Your task to perform on an android device: Search for beats solo 3 on newegg.com, select the first entry, and add it to the cart. Image 0: 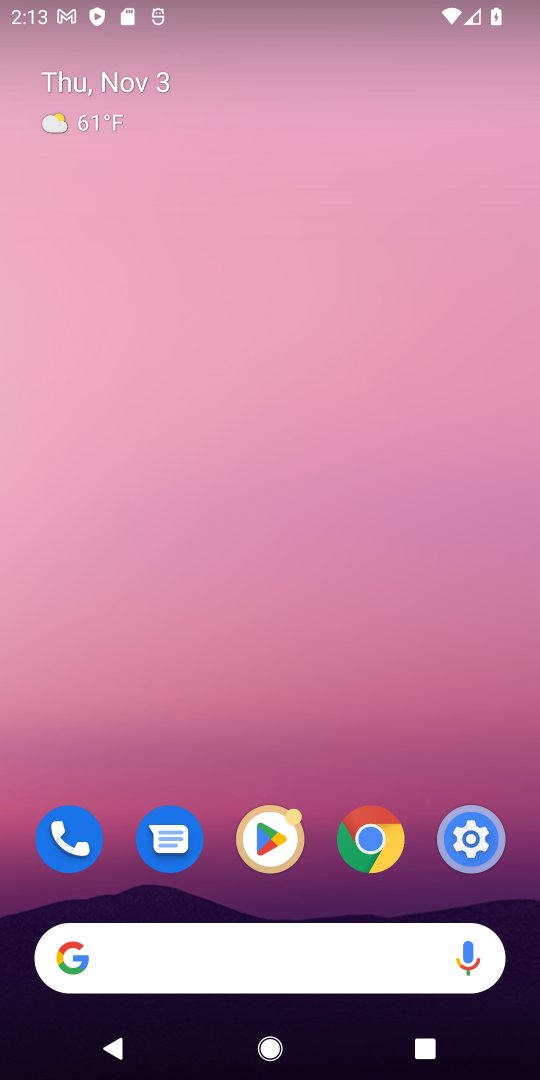
Step 0: click (157, 971)
Your task to perform on an android device: Search for beats solo 3 on newegg.com, select the first entry, and add it to the cart. Image 1: 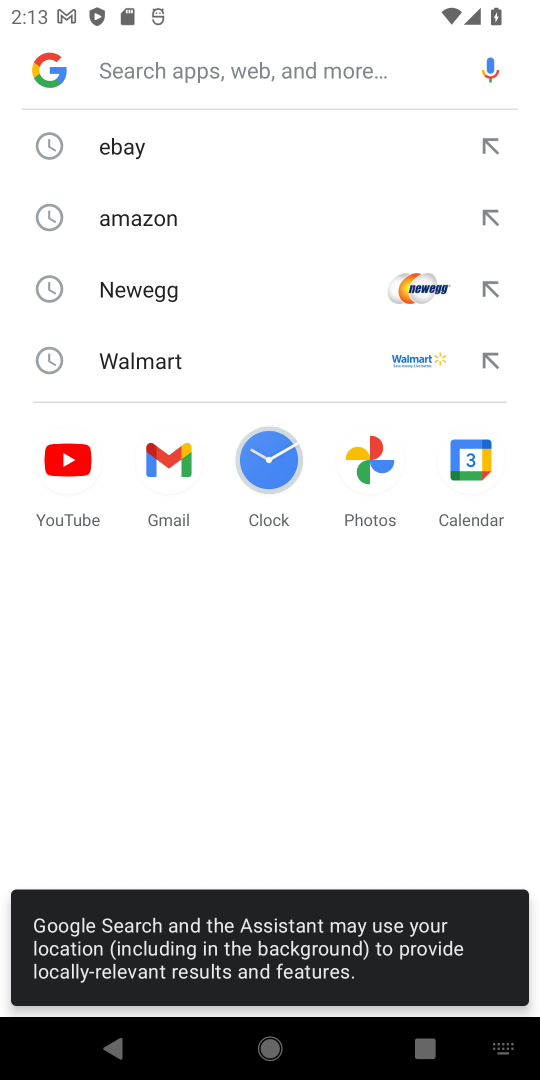
Step 1: click (203, 278)
Your task to perform on an android device: Search for beats solo 3 on newegg.com, select the first entry, and add it to the cart. Image 2: 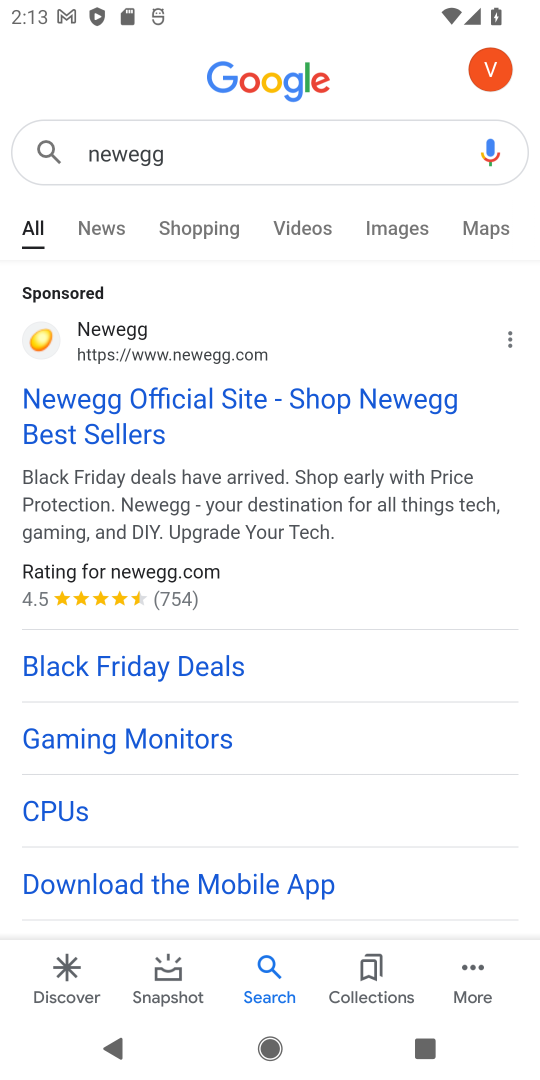
Step 2: click (158, 389)
Your task to perform on an android device: Search for beats solo 3 on newegg.com, select the first entry, and add it to the cart. Image 3: 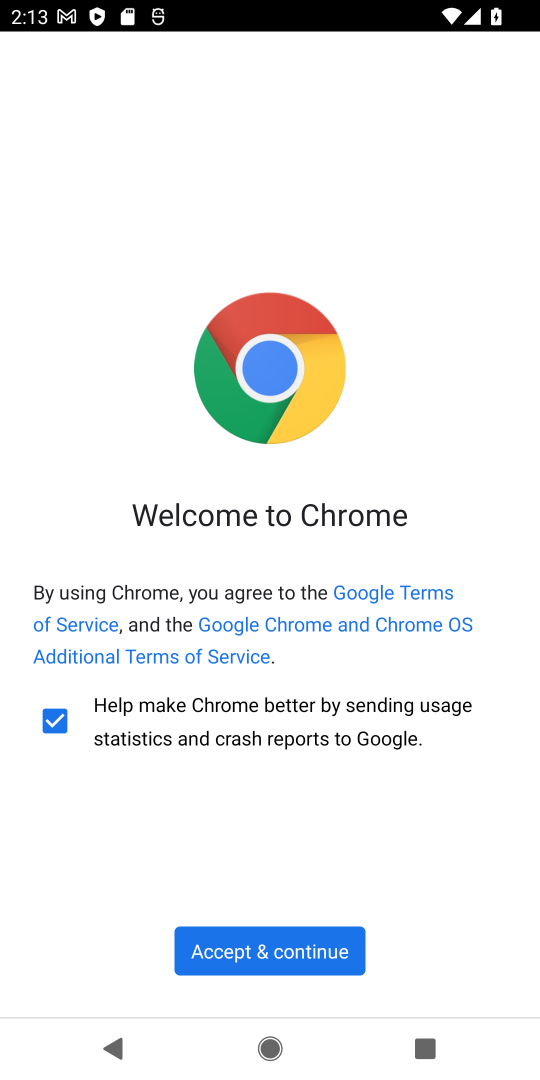
Step 3: click (273, 942)
Your task to perform on an android device: Search for beats solo 3 on newegg.com, select the first entry, and add it to the cart. Image 4: 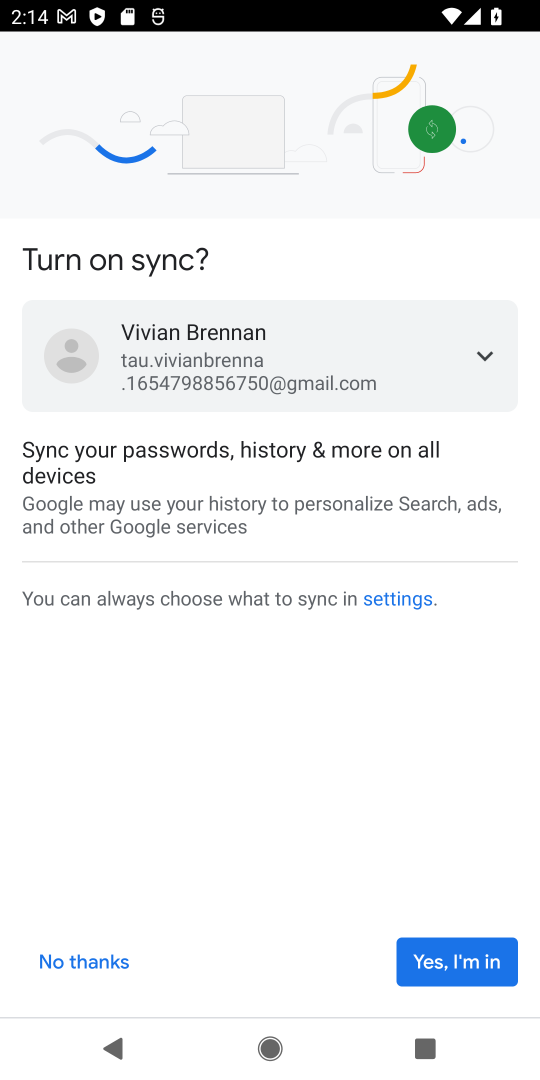
Step 4: click (465, 971)
Your task to perform on an android device: Search for beats solo 3 on newegg.com, select the first entry, and add it to the cart. Image 5: 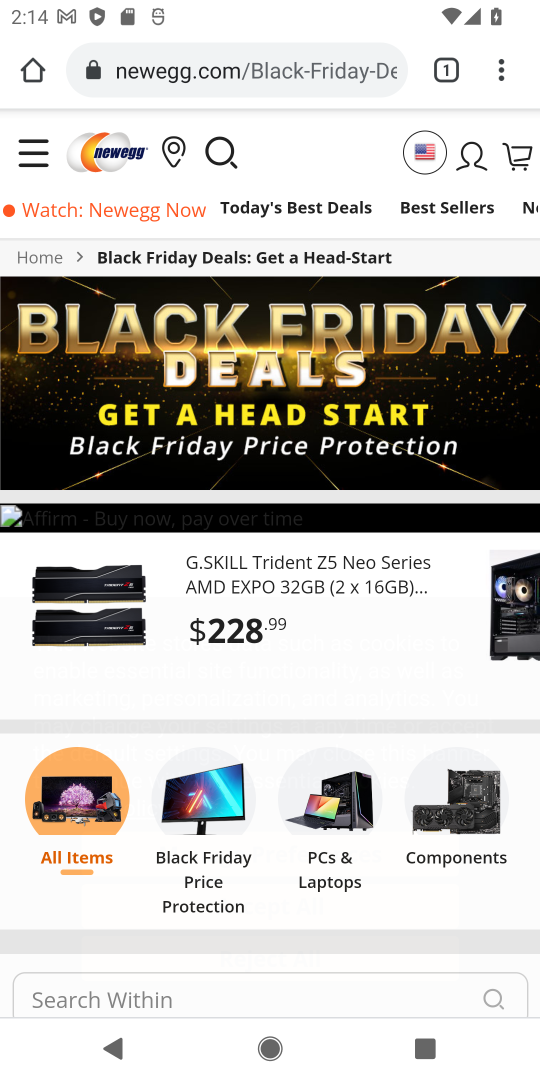
Step 5: click (238, 154)
Your task to perform on an android device: Search for beats solo 3 on newegg.com, select the first entry, and add it to the cart. Image 6: 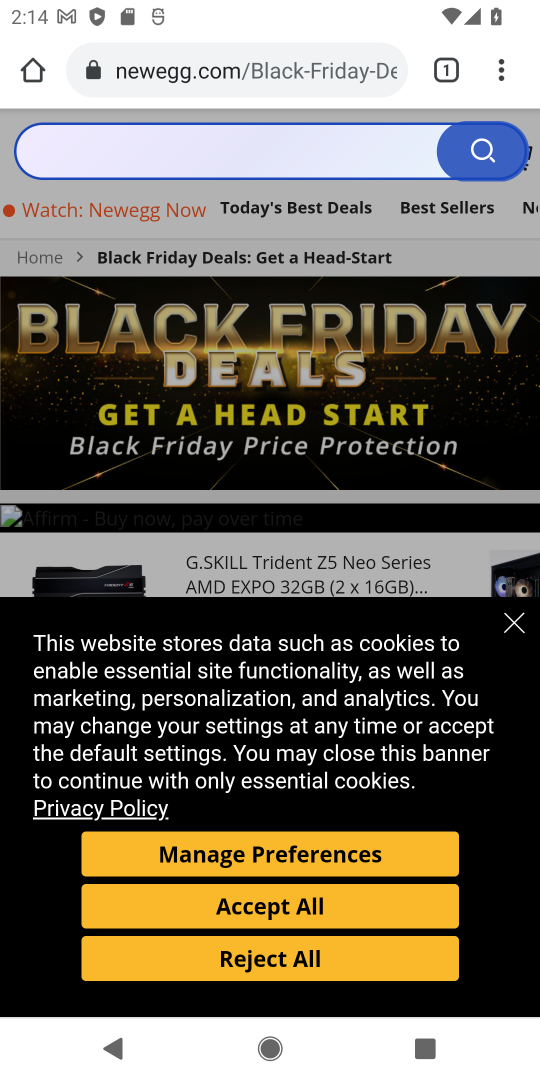
Step 6: click (189, 133)
Your task to perform on an android device: Search for beats solo 3 on newegg.com, select the first entry, and add it to the cart. Image 7: 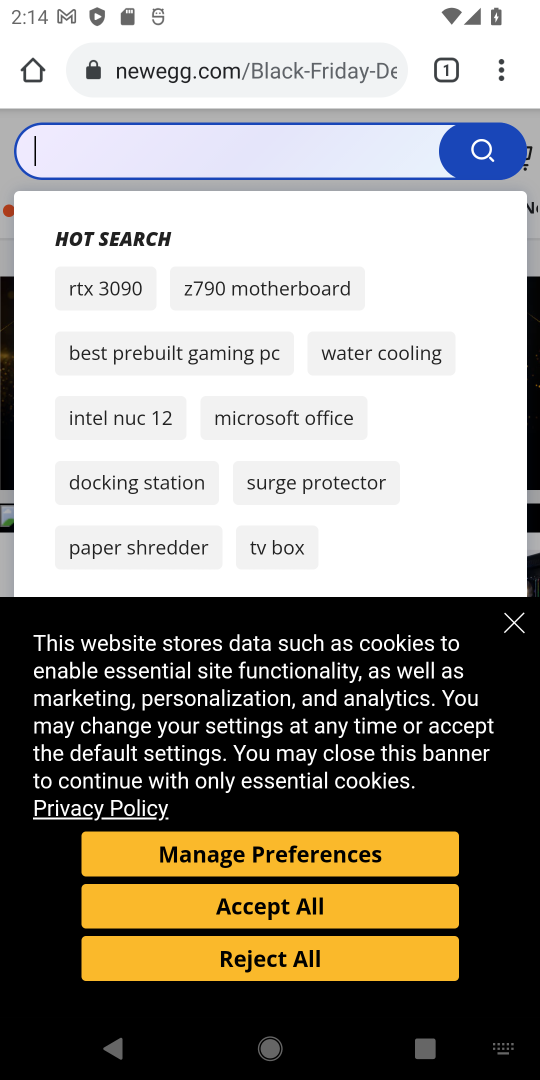
Step 7: click (189, 142)
Your task to perform on an android device: Search for beats solo 3 on newegg.com, select the first entry, and add it to the cart. Image 8: 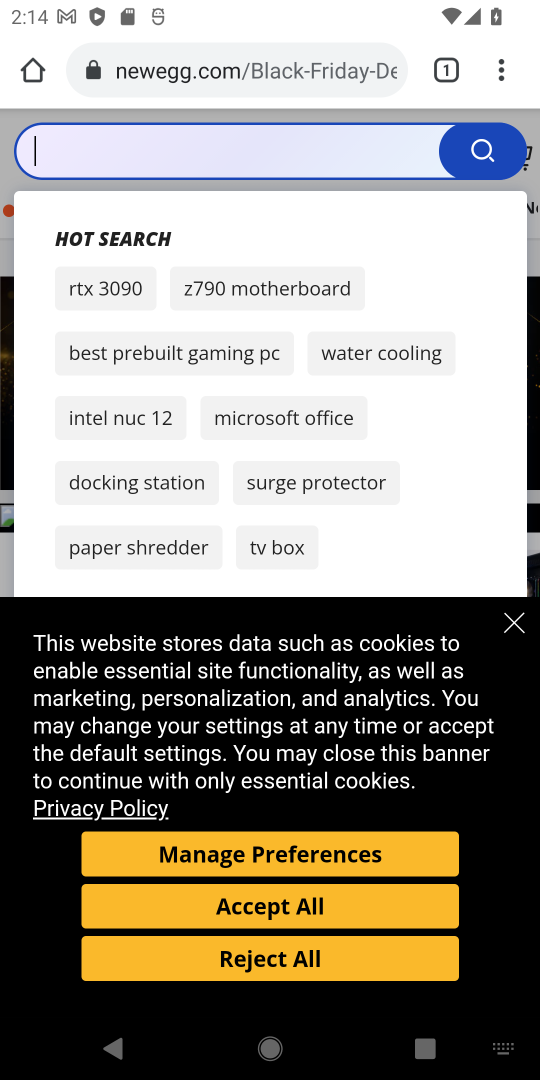
Step 8: type "beats solo 3"
Your task to perform on an android device: Search for beats solo 3 on newegg.com, select the first entry, and add it to the cart. Image 9: 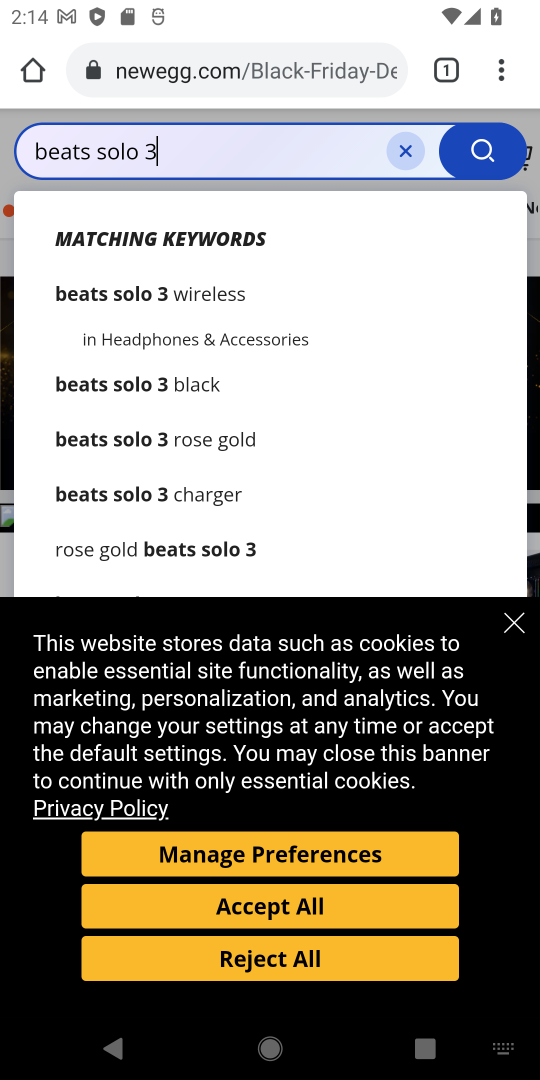
Step 9: click (478, 155)
Your task to perform on an android device: Search for beats solo 3 on newegg.com, select the first entry, and add it to the cart. Image 10: 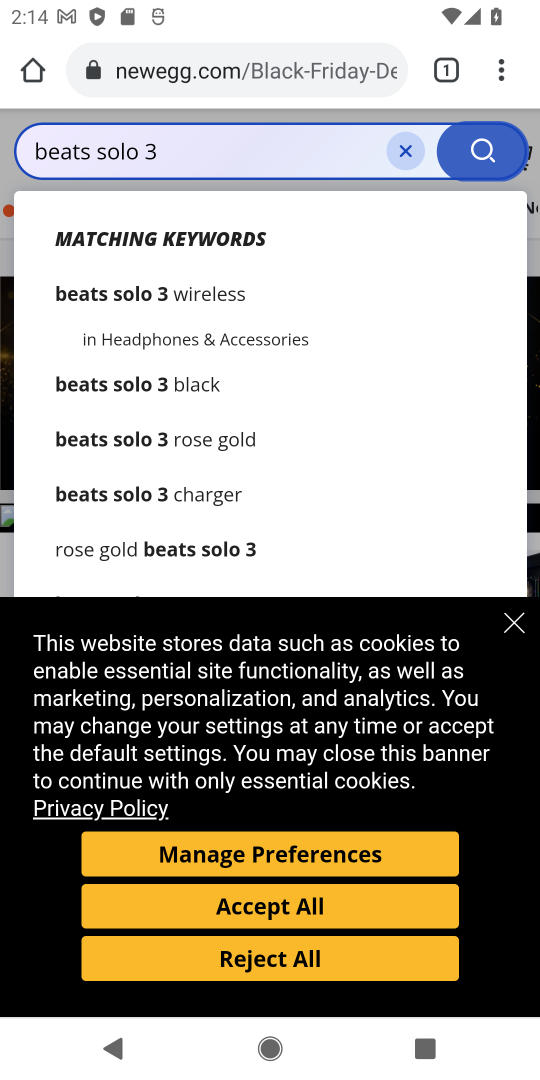
Step 10: click (298, 909)
Your task to perform on an android device: Search for beats solo 3 on newegg.com, select the first entry, and add it to the cart. Image 11: 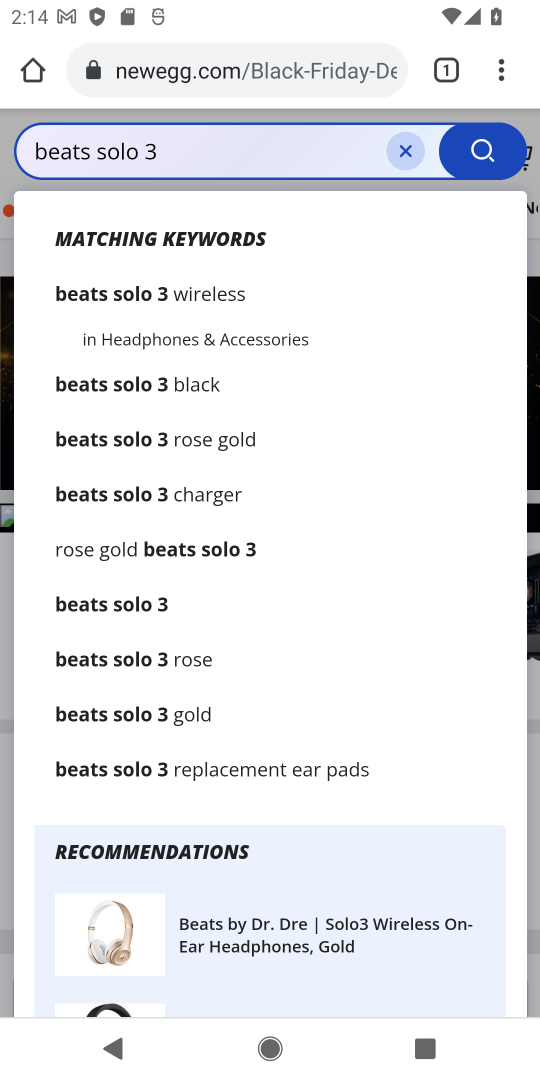
Step 11: click (230, 288)
Your task to perform on an android device: Search for beats solo 3 on newegg.com, select the first entry, and add it to the cart. Image 12: 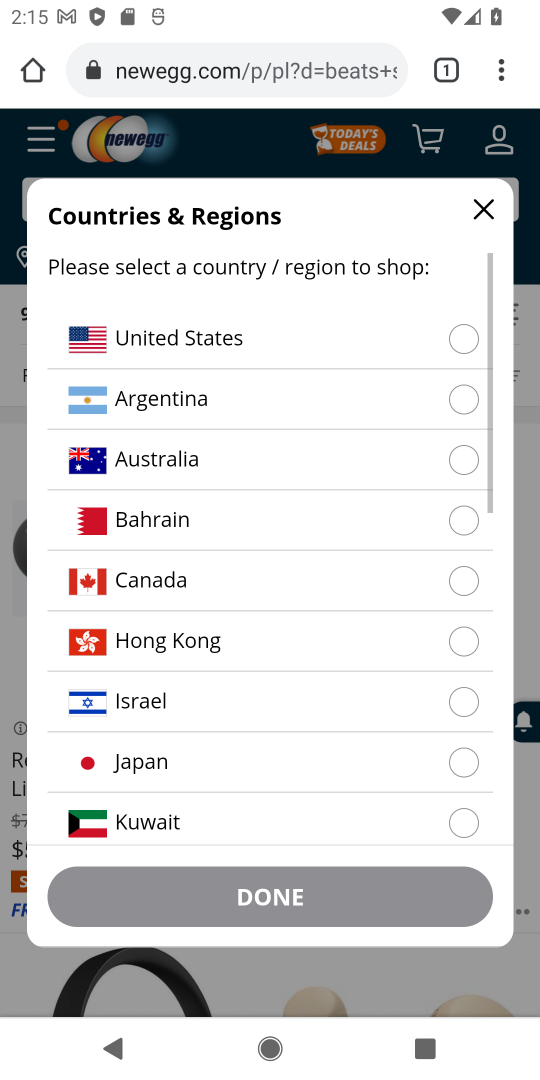
Step 12: click (276, 333)
Your task to perform on an android device: Search for beats solo 3 on newegg.com, select the first entry, and add it to the cart. Image 13: 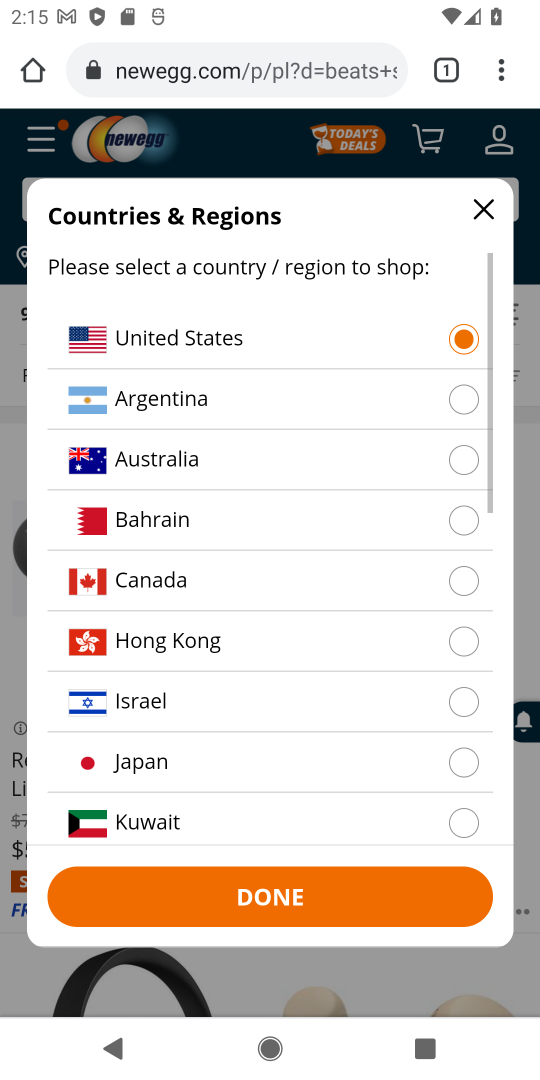
Step 13: click (271, 805)
Your task to perform on an android device: Search for beats solo 3 on newegg.com, select the first entry, and add it to the cart. Image 14: 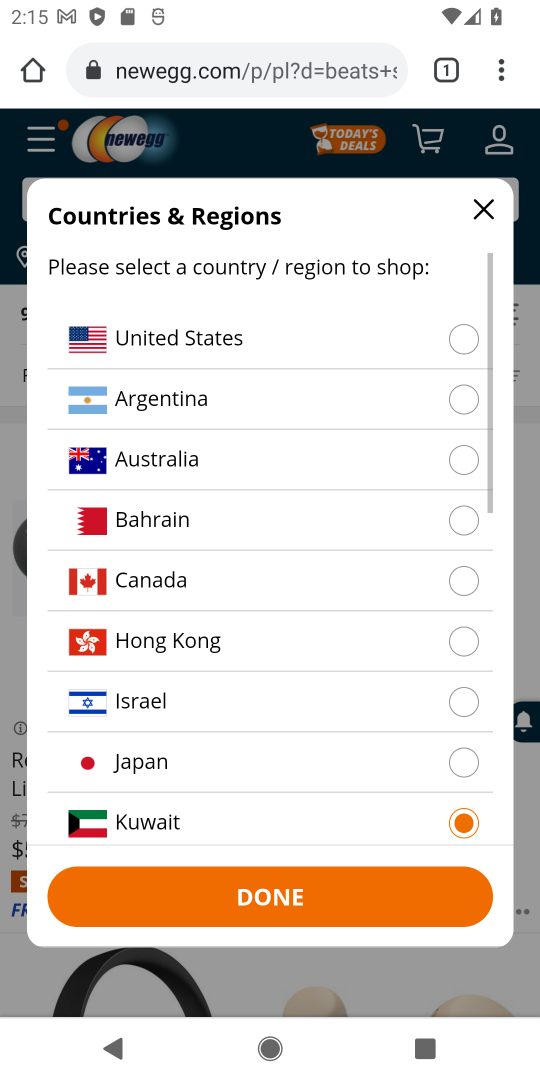
Step 14: click (311, 888)
Your task to perform on an android device: Search for beats solo 3 on newegg.com, select the first entry, and add it to the cart. Image 15: 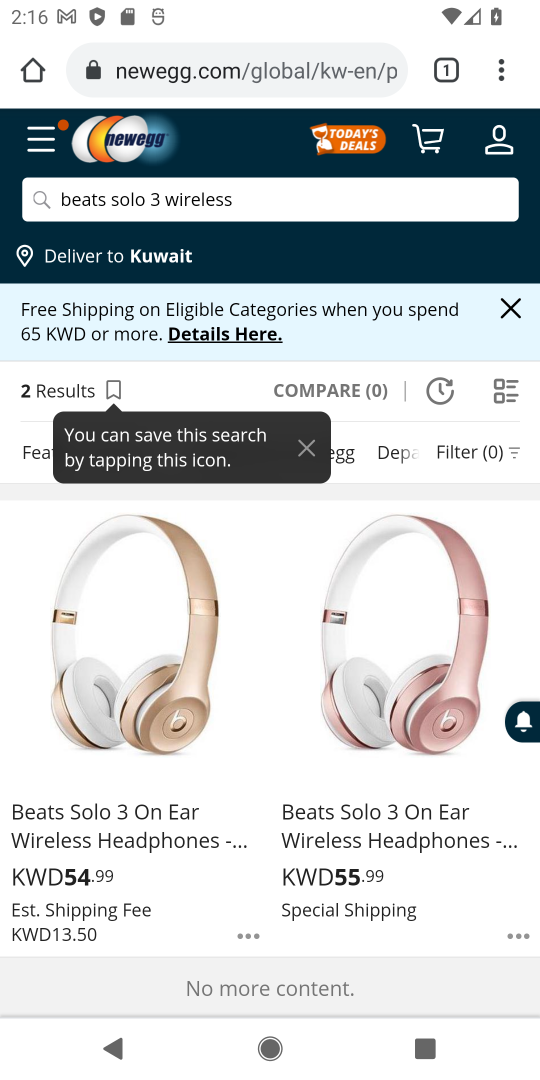
Step 15: click (98, 895)
Your task to perform on an android device: Search for beats solo 3 on newegg.com, select the first entry, and add it to the cart. Image 16: 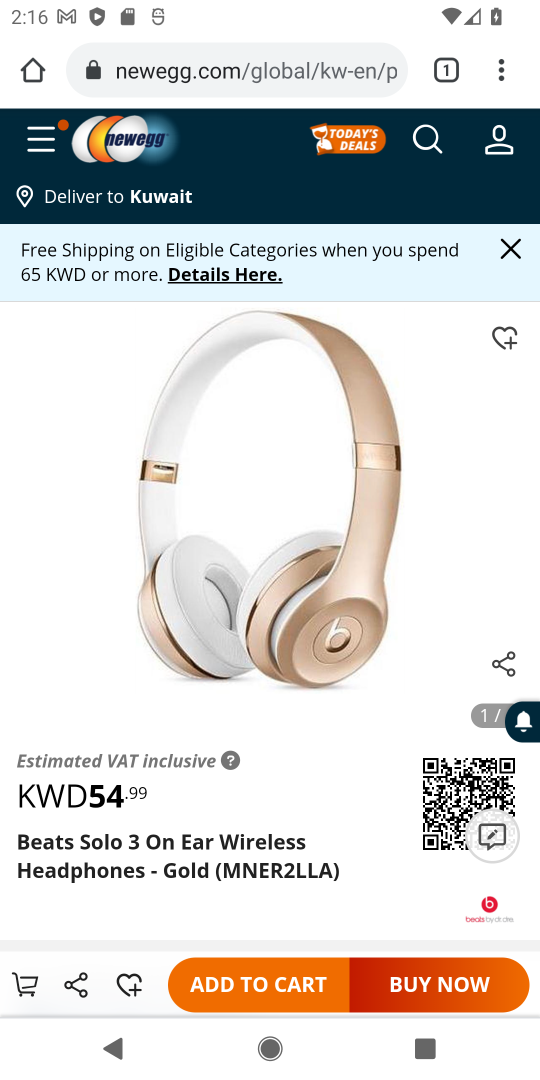
Step 16: click (282, 990)
Your task to perform on an android device: Search for beats solo 3 on newegg.com, select the first entry, and add it to the cart. Image 17: 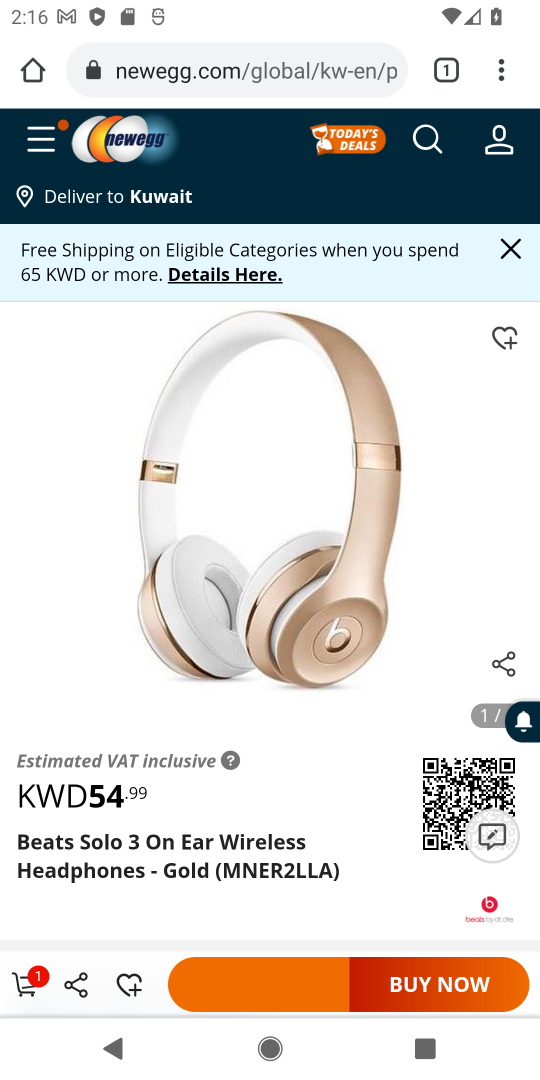
Step 17: task complete